Your task to perform on an android device: check battery use Image 0: 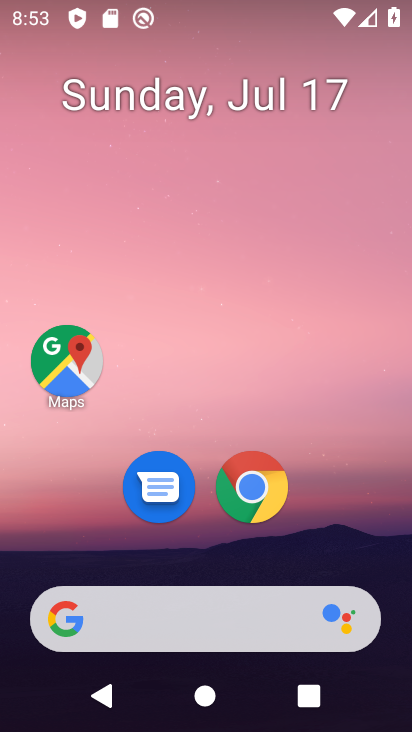
Step 0: press home button
Your task to perform on an android device: check battery use Image 1: 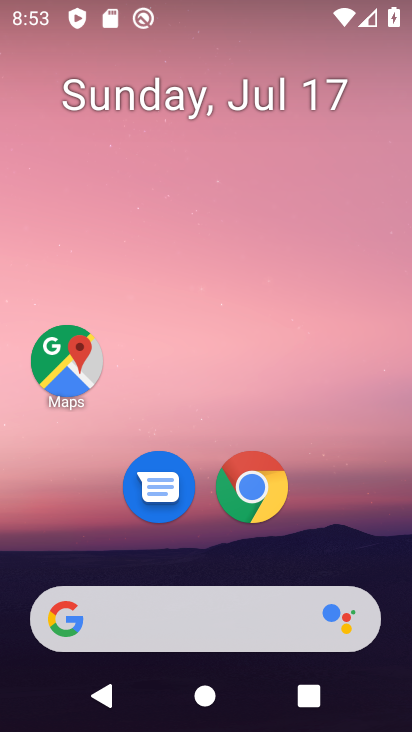
Step 1: drag from (345, 519) to (355, 125)
Your task to perform on an android device: check battery use Image 2: 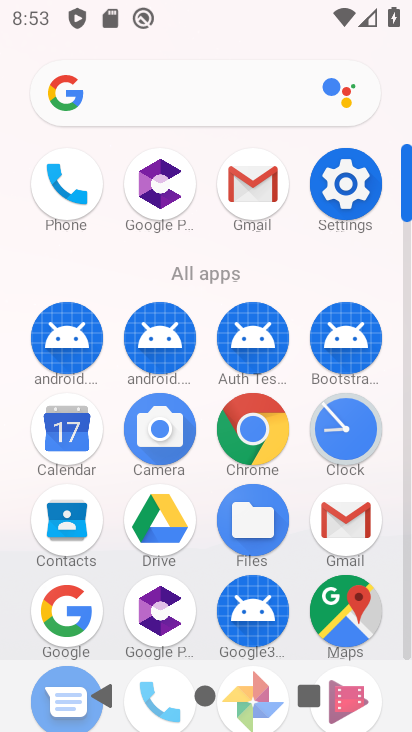
Step 2: click (351, 187)
Your task to perform on an android device: check battery use Image 3: 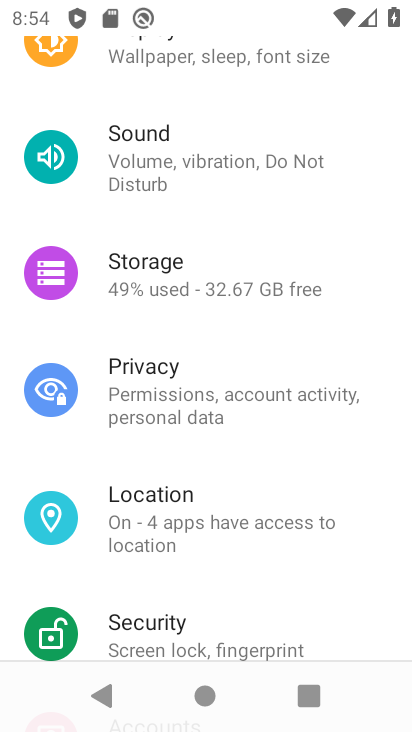
Step 3: drag from (205, 575) to (178, 697)
Your task to perform on an android device: check battery use Image 4: 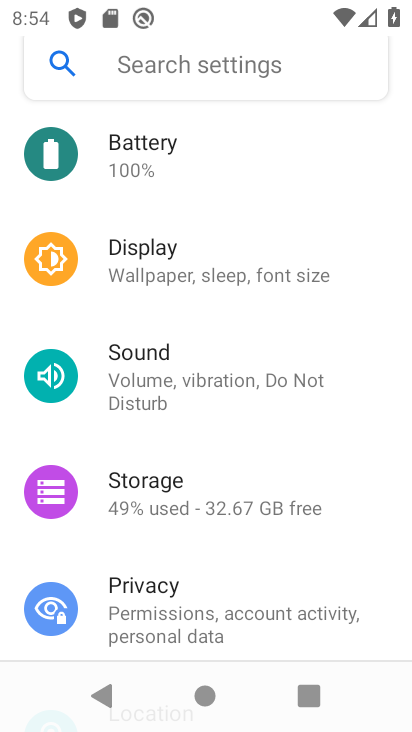
Step 4: click (199, 196)
Your task to perform on an android device: check battery use Image 5: 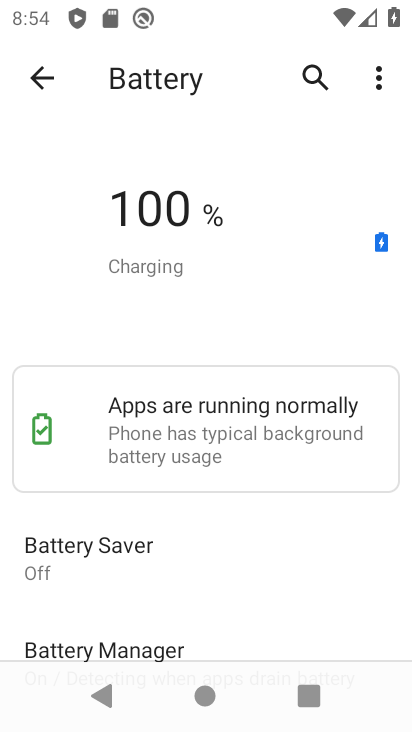
Step 5: task complete